Your task to perform on an android device: turn on notifications settings in the gmail app Image 0: 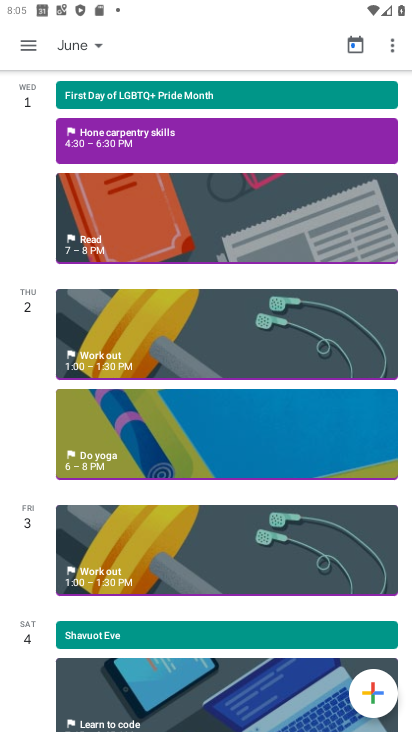
Step 0: press home button
Your task to perform on an android device: turn on notifications settings in the gmail app Image 1: 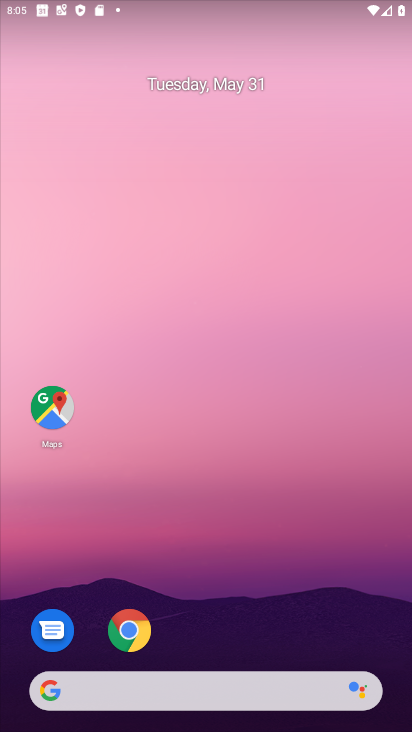
Step 1: drag from (219, 582) to (239, 189)
Your task to perform on an android device: turn on notifications settings in the gmail app Image 2: 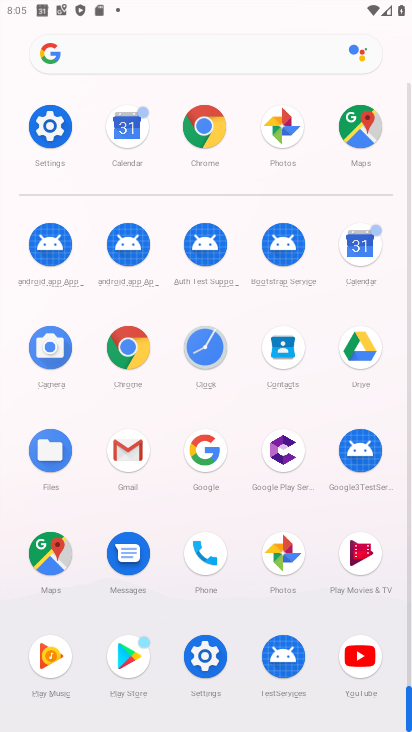
Step 2: click (119, 444)
Your task to perform on an android device: turn on notifications settings in the gmail app Image 3: 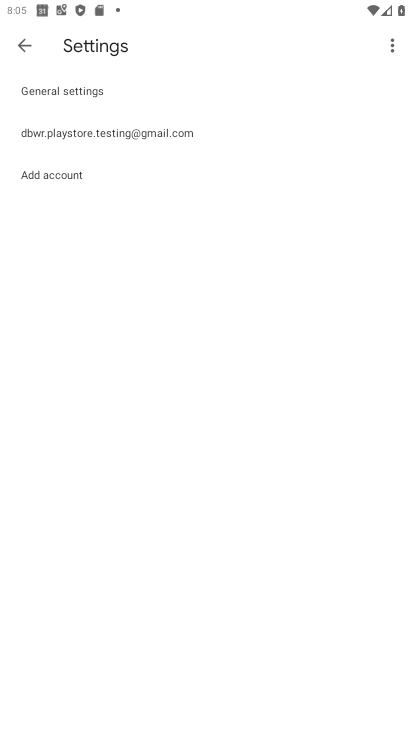
Step 3: click (23, 37)
Your task to perform on an android device: turn on notifications settings in the gmail app Image 4: 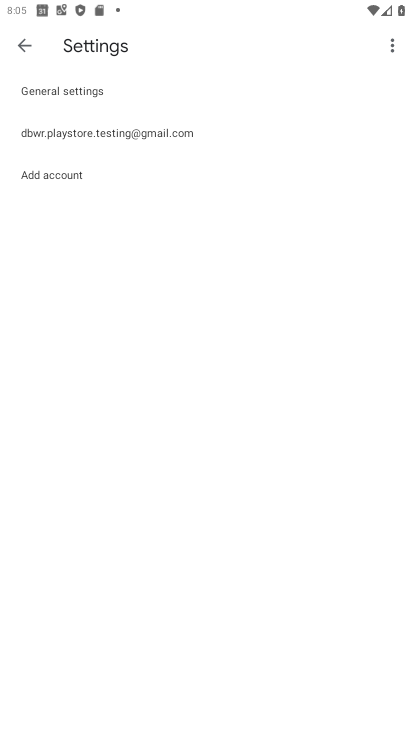
Step 4: click (90, 129)
Your task to perform on an android device: turn on notifications settings in the gmail app Image 5: 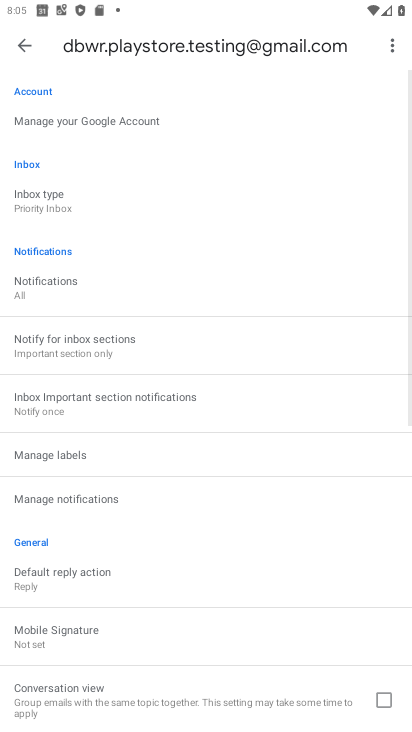
Step 5: click (67, 288)
Your task to perform on an android device: turn on notifications settings in the gmail app Image 6: 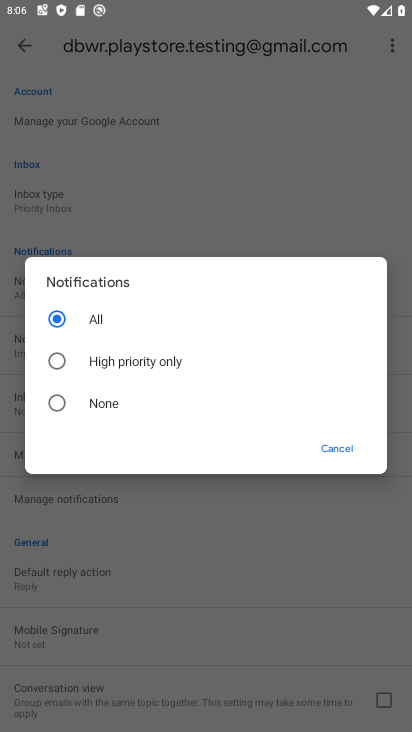
Step 6: task complete